Your task to perform on an android device: search for starred emails in the gmail app Image 0: 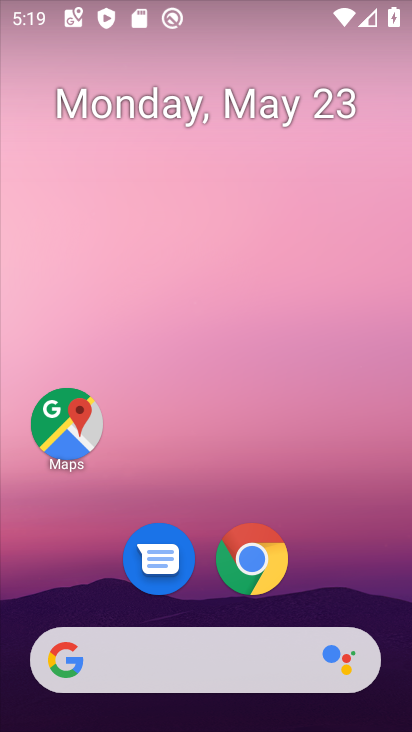
Step 0: drag from (196, 674) to (228, 96)
Your task to perform on an android device: search for starred emails in the gmail app Image 1: 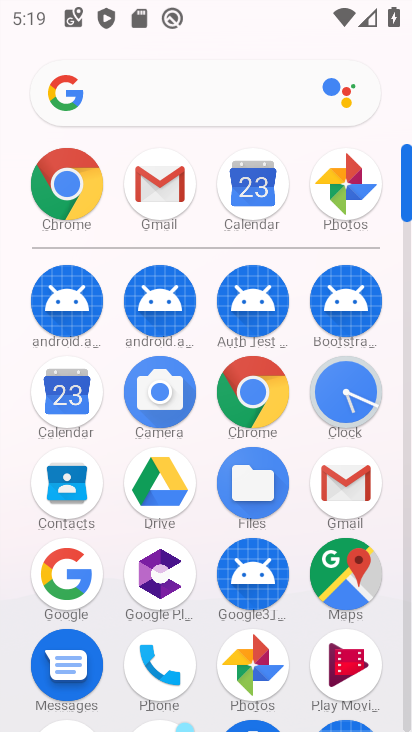
Step 1: click (349, 481)
Your task to perform on an android device: search for starred emails in the gmail app Image 2: 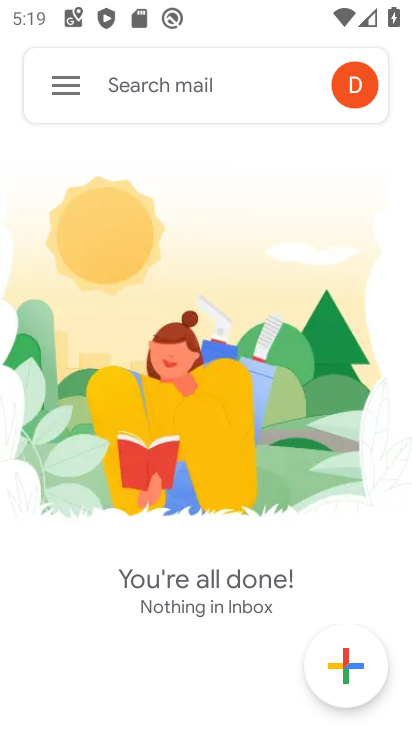
Step 2: click (35, 81)
Your task to perform on an android device: search for starred emails in the gmail app Image 3: 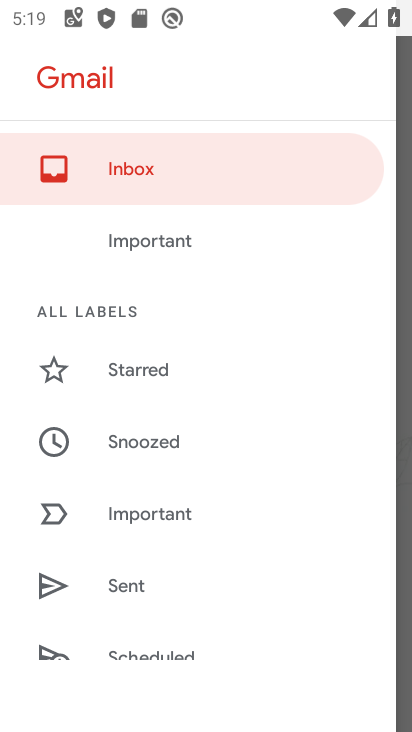
Step 3: click (160, 377)
Your task to perform on an android device: search for starred emails in the gmail app Image 4: 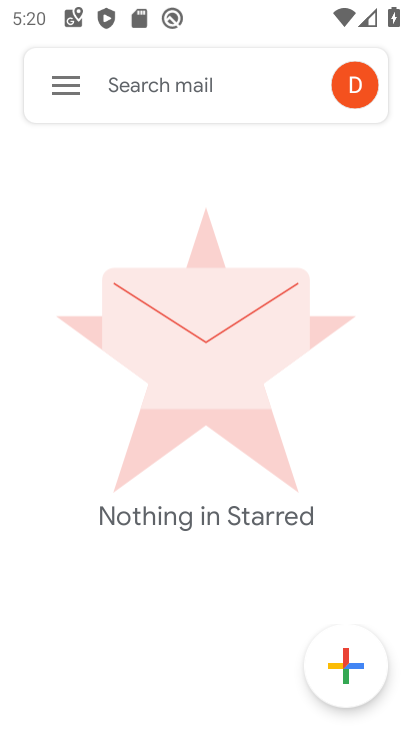
Step 4: task complete